Your task to perform on an android device: Go to internet settings Image 0: 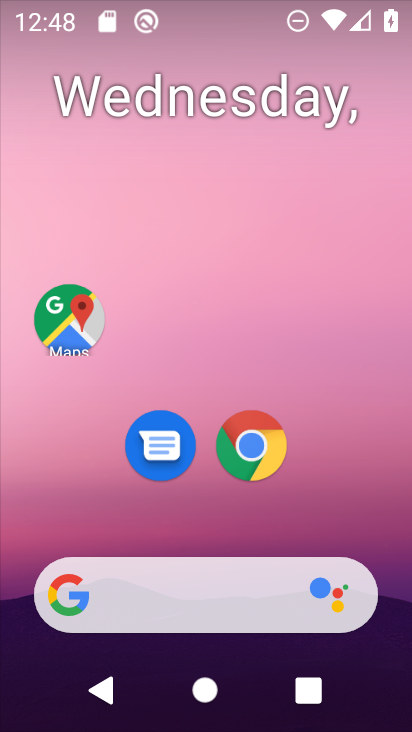
Step 0: drag from (388, 625) to (199, 39)
Your task to perform on an android device: Go to internet settings Image 1: 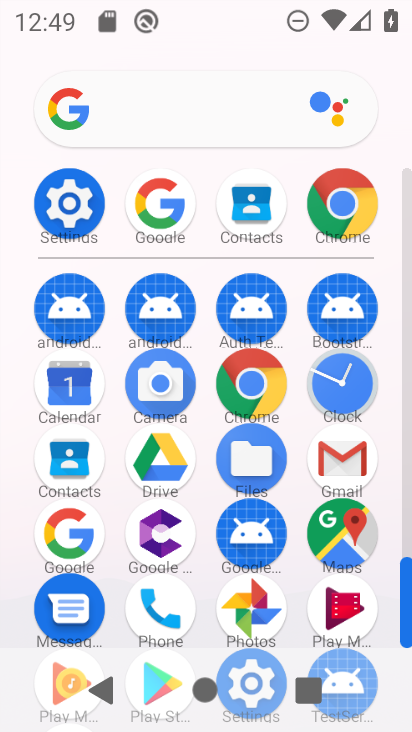
Step 1: click (99, 197)
Your task to perform on an android device: Go to internet settings Image 2: 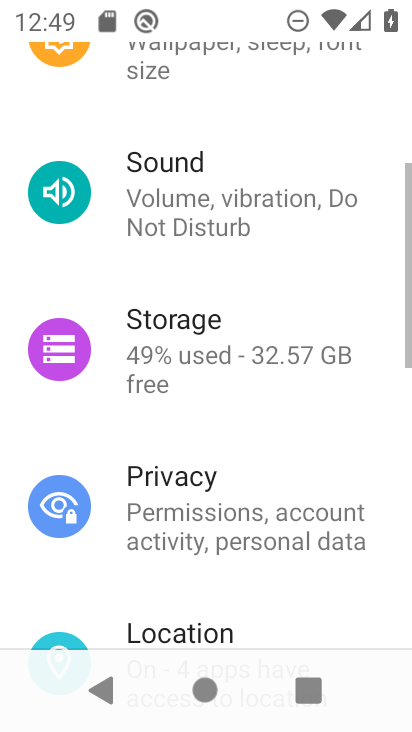
Step 2: drag from (197, 154) to (331, 645)
Your task to perform on an android device: Go to internet settings Image 3: 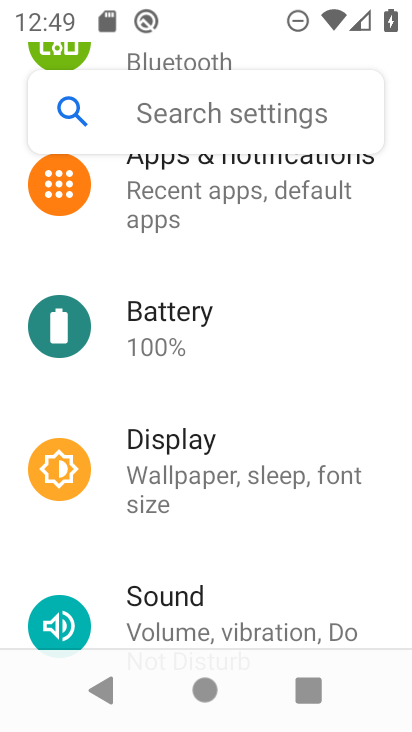
Step 3: drag from (260, 211) to (299, 730)
Your task to perform on an android device: Go to internet settings Image 4: 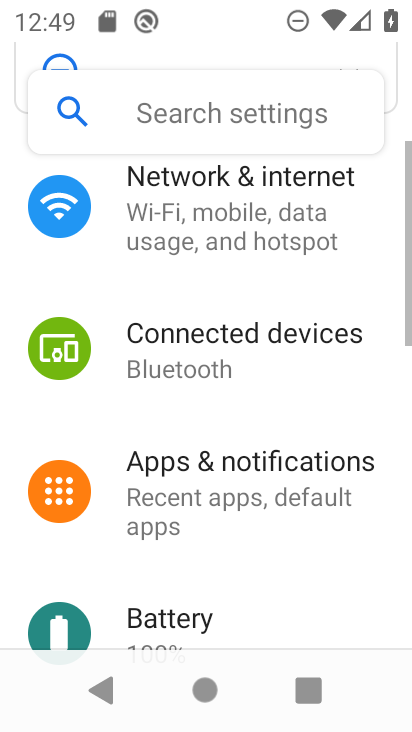
Step 4: drag from (218, 215) to (285, 725)
Your task to perform on an android device: Go to internet settings Image 5: 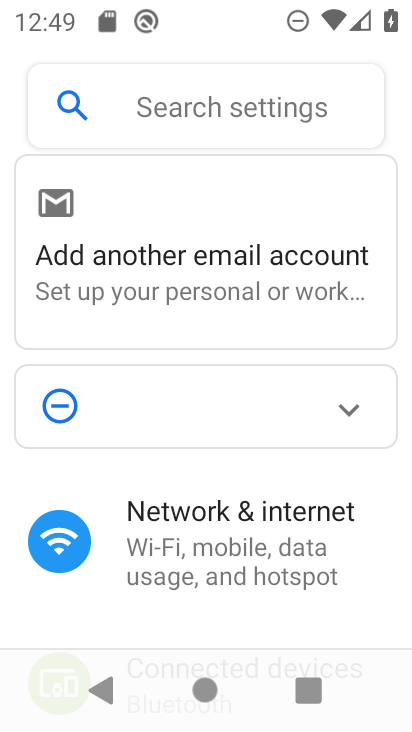
Step 5: click (290, 591)
Your task to perform on an android device: Go to internet settings Image 6: 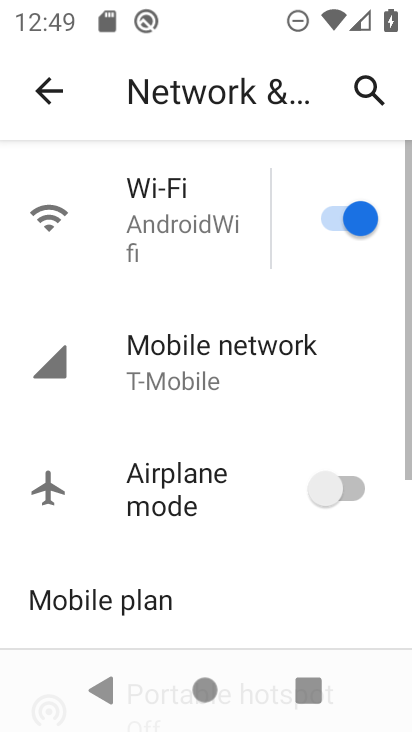
Step 6: task complete